Your task to perform on an android device: Is it going to rain tomorrow? Image 0: 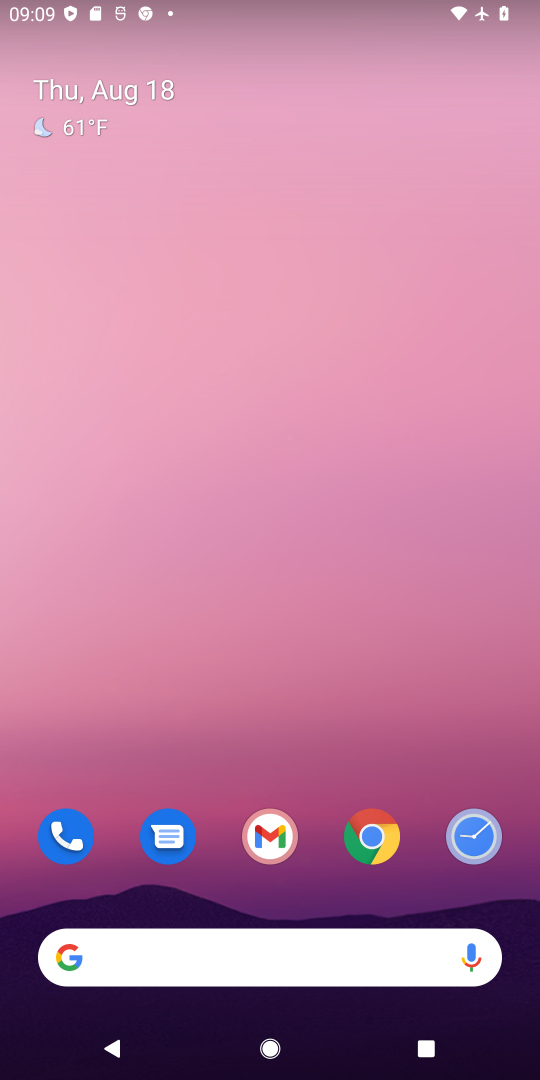
Step 0: click (73, 123)
Your task to perform on an android device: Is it going to rain tomorrow? Image 1: 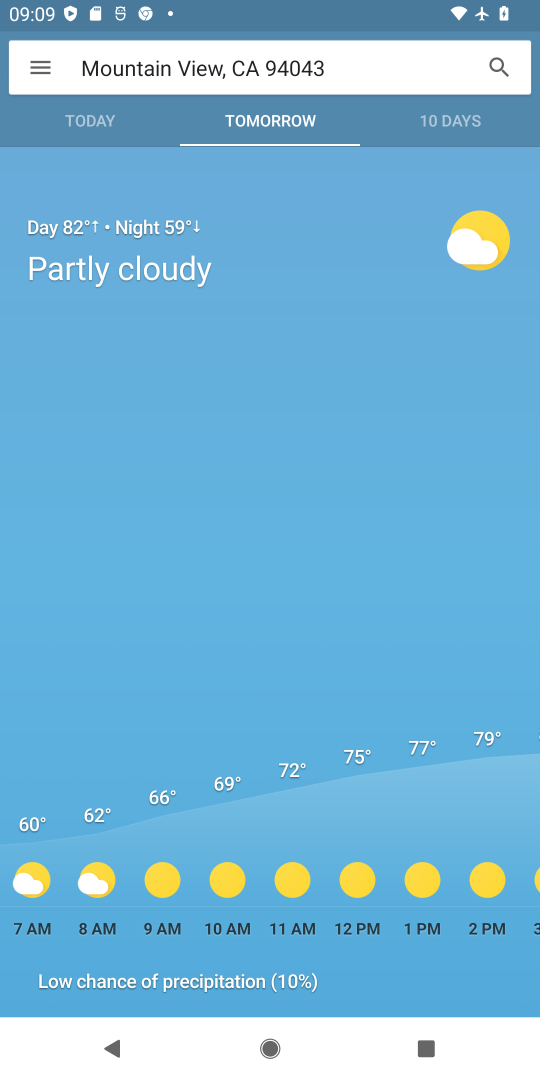
Step 1: task complete